Your task to perform on an android device: Go to wifi settings Image 0: 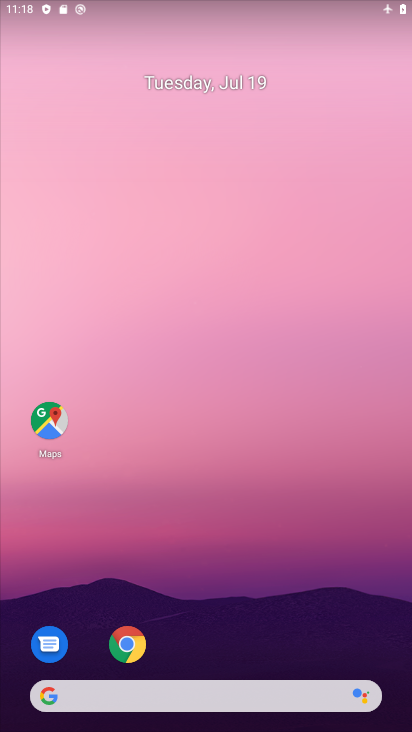
Step 0: drag from (47, 702) to (152, 103)
Your task to perform on an android device: Go to wifi settings Image 1: 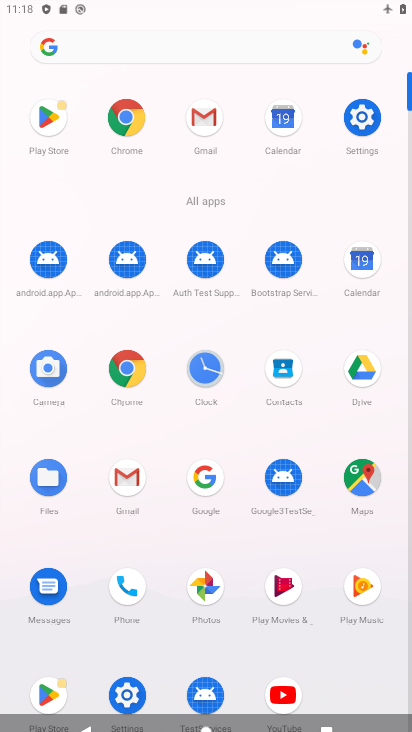
Step 1: click (123, 683)
Your task to perform on an android device: Go to wifi settings Image 2: 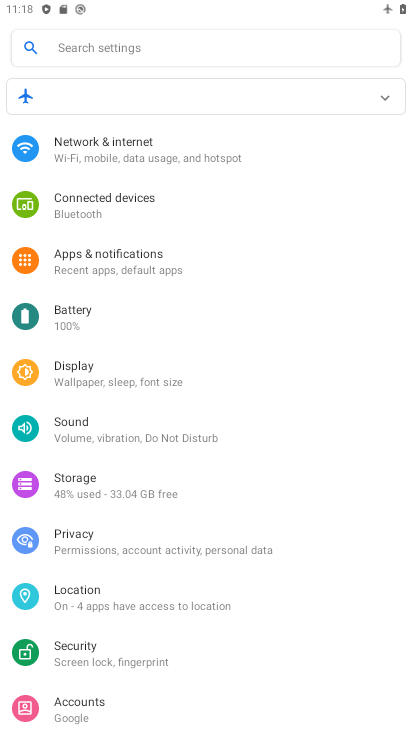
Step 2: click (126, 150)
Your task to perform on an android device: Go to wifi settings Image 3: 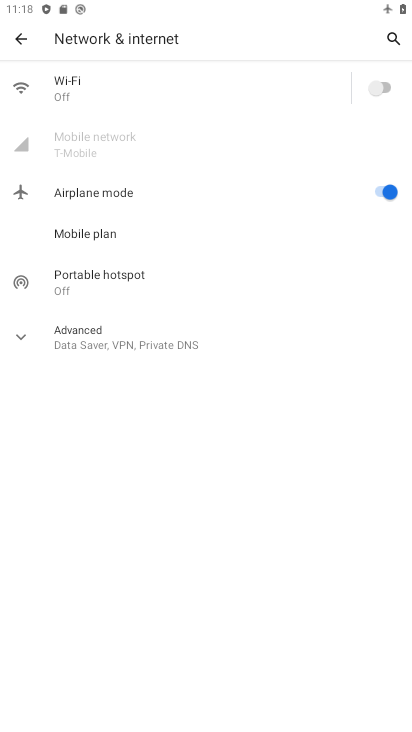
Step 3: click (75, 90)
Your task to perform on an android device: Go to wifi settings Image 4: 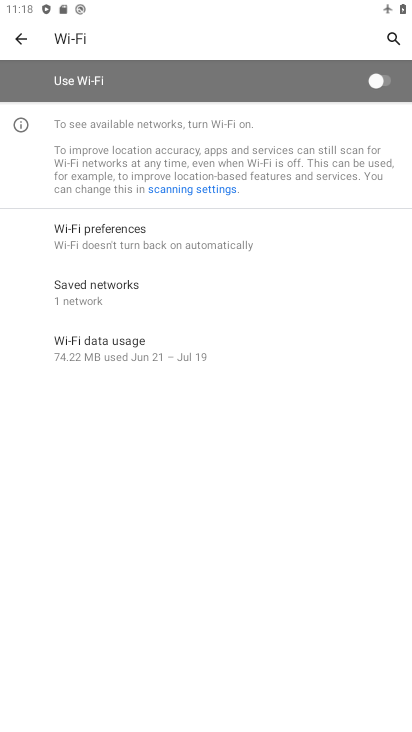
Step 4: task complete